Your task to perform on an android device: Show me the alarms in the clock app Image 0: 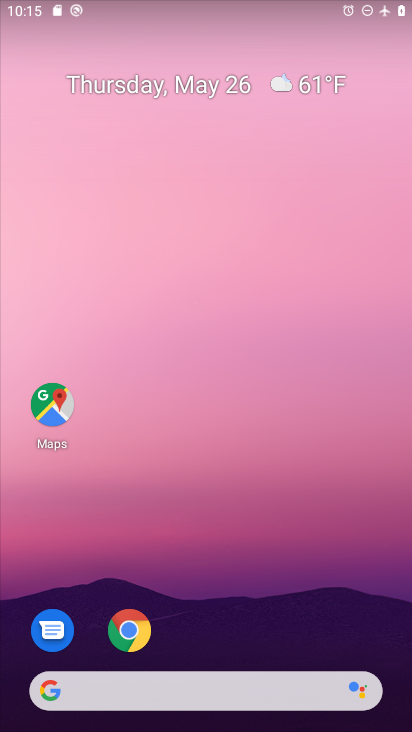
Step 0: drag from (229, 640) to (196, 135)
Your task to perform on an android device: Show me the alarms in the clock app Image 1: 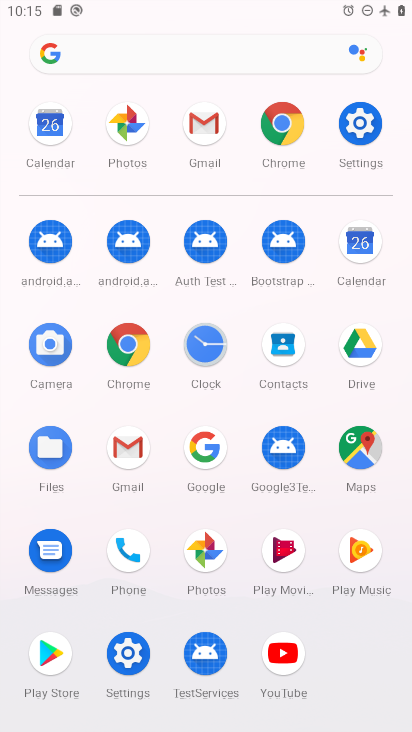
Step 1: click (220, 336)
Your task to perform on an android device: Show me the alarms in the clock app Image 2: 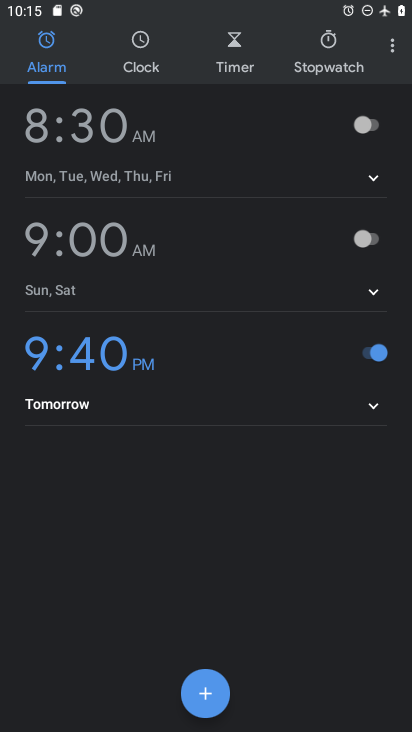
Step 2: task complete